Your task to perform on an android device: change the clock display to digital Image 0: 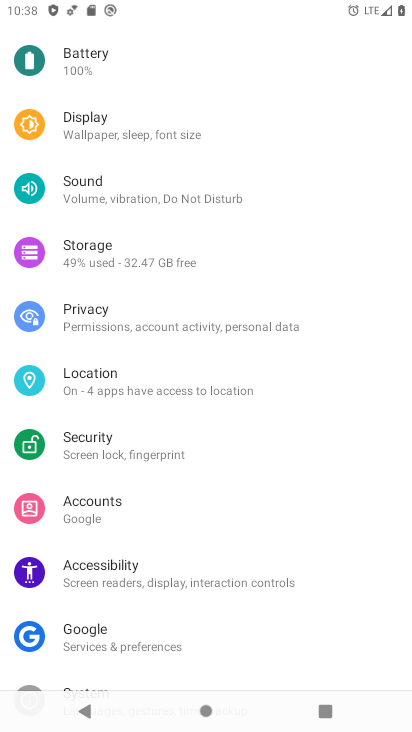
Step 0: press home button
Your task to perform on an android device: change the clock display to digital Image 1: 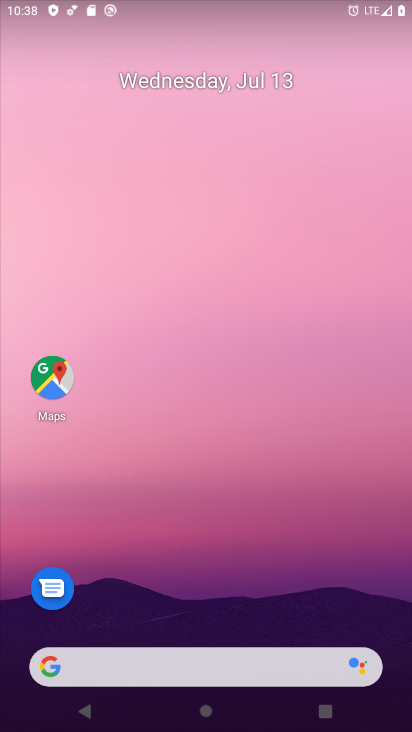
Step 1: drag from (241, 710) to (266, 0)
Your task to perform on an android device: change the clock display to digital Image 2: 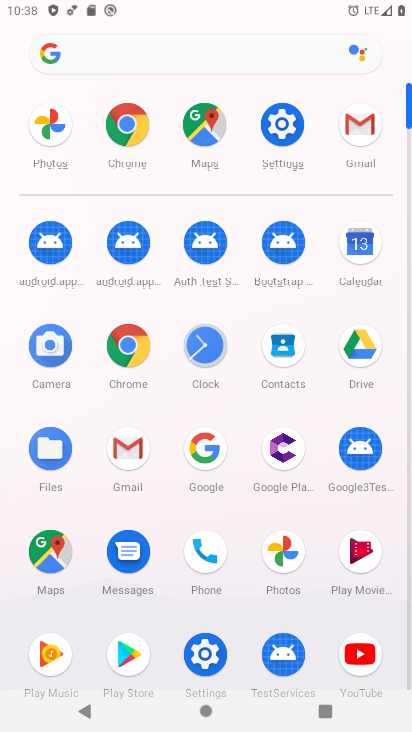
Step 2: click (201, 350)
Your task to perform on an android device: change the clock display to digital Image 3: 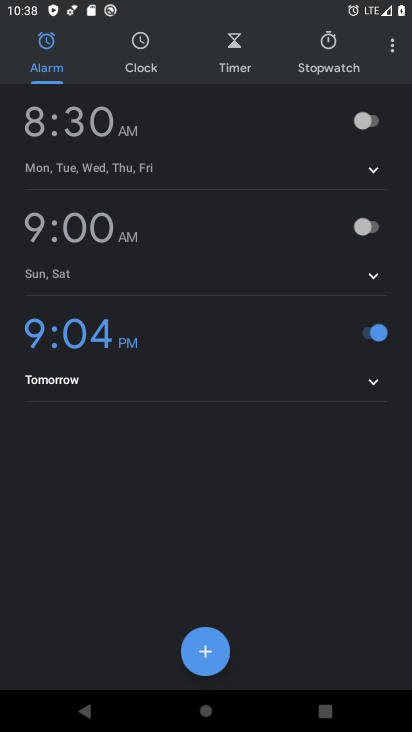
Step 3: click (397, 43)
Your task to perform on an android device: change the clock display to digital Image 4: 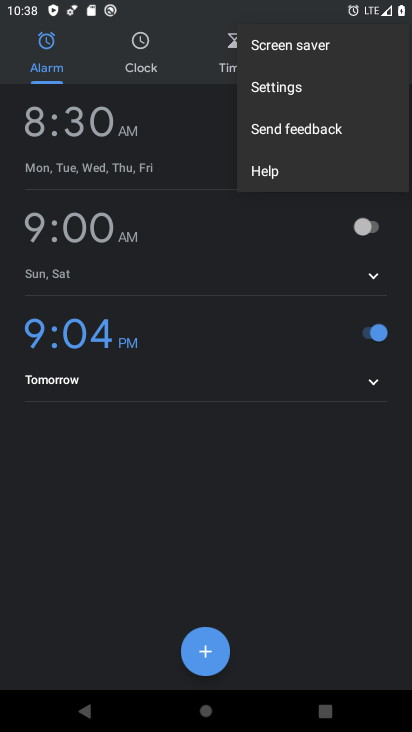
Step 4: click (310, 90)
Your task to perform on an android device: change the clock display to digital Image 5: 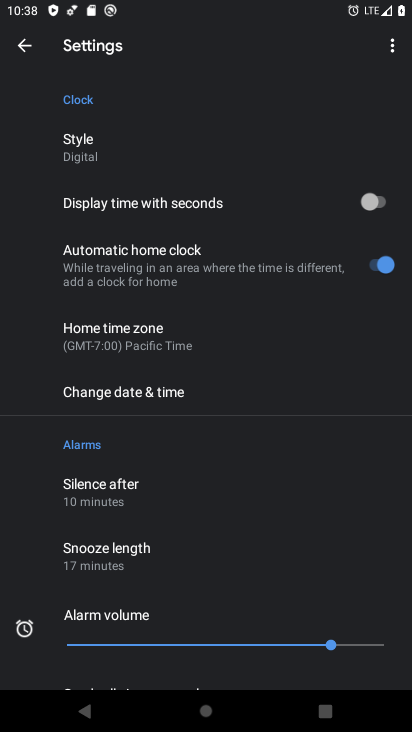
Step 5: click (83, 148)
Your task to perform on an android device: change the clock display to digital Image 6: 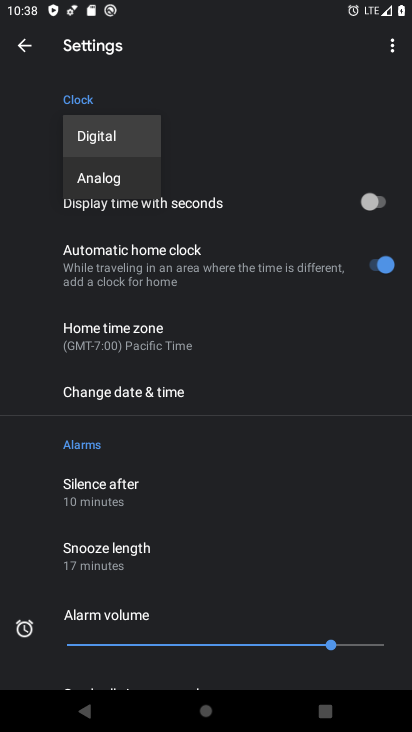
Step 6: click (83, 148)
Your task to perform on an android device: change the clock display to digital Image 7: 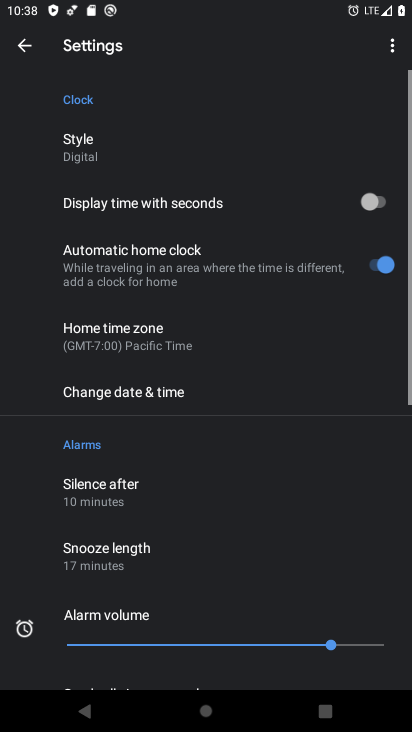
Step 7: task complete